Your task to perform on an android device: Go to calendar. Show me events next week Image 0: 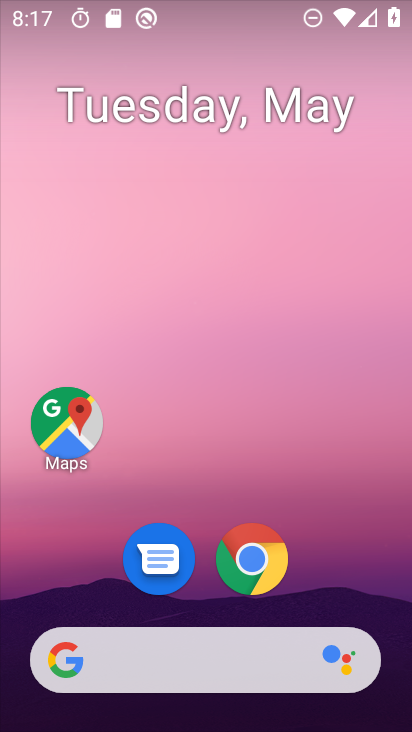
Step 0: drag from (401, 653) to (287, 88)
Your task to perform on an android device: Go to calendar. Show me events next week Image 1: 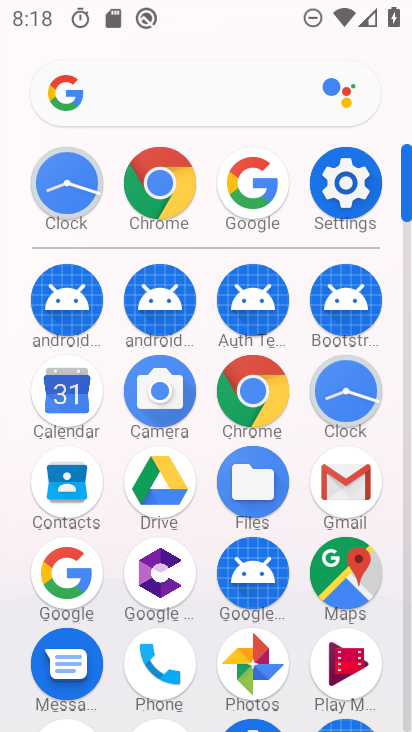
Step 1: click (77, 381)
Your task to perform on an android device: Go to calendar. Show me events next week Image 2: 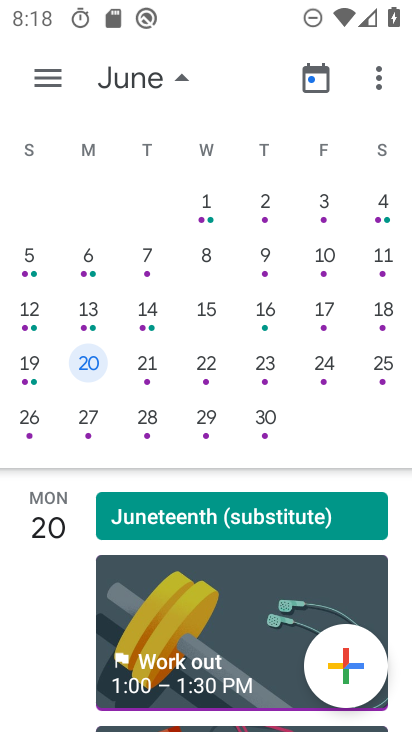
Step 2: task complete